Your task to perform on an android device: open app "Firefox Browser" Image 0: 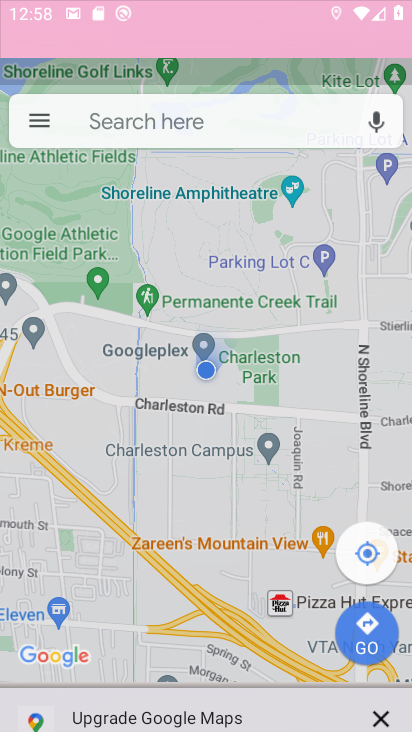
Step 0: drag from (271, 618) to (279, 228)
Your task to perform on an android device: open app "Firefox Browser" Image 1: 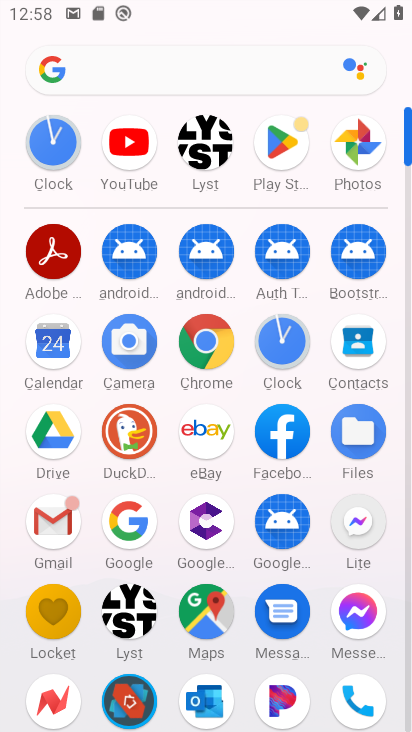
Step 1: click (261, 152)
Your task to perform on an android device: open app "Firefox Browser" Image 2: 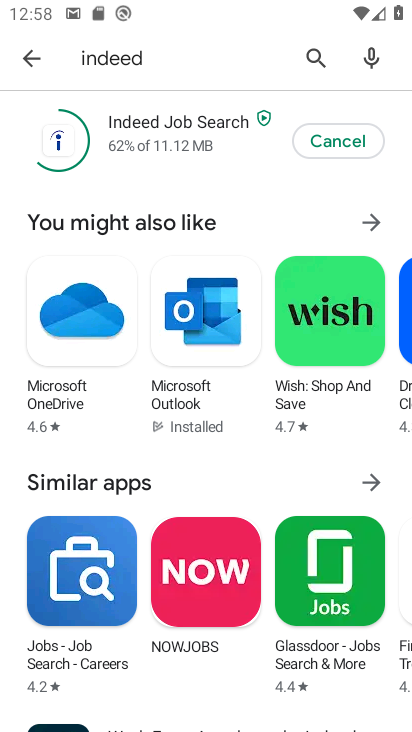
Step 2: click (296, 70)
Your task to perform on an android device: open app "Firefox Browser" Image 3: 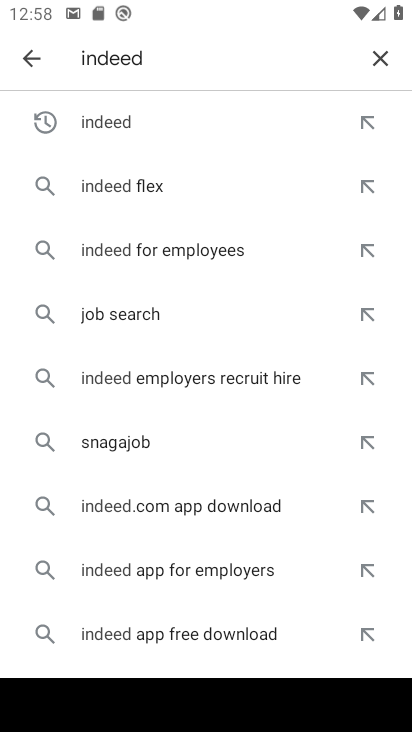
Step 3: click (367, 66)
Your task to perform on an android device: open app "Firefox Browser" Image 4: 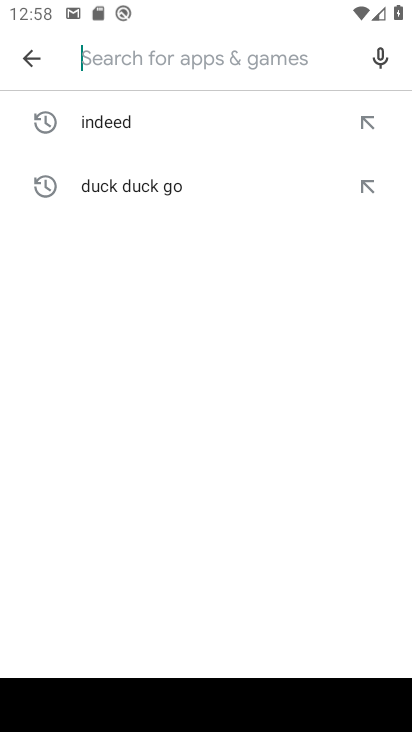
Step 4: type "firefox"
Your task to perform on an android device: open app "Firefox Browser" Image 5: 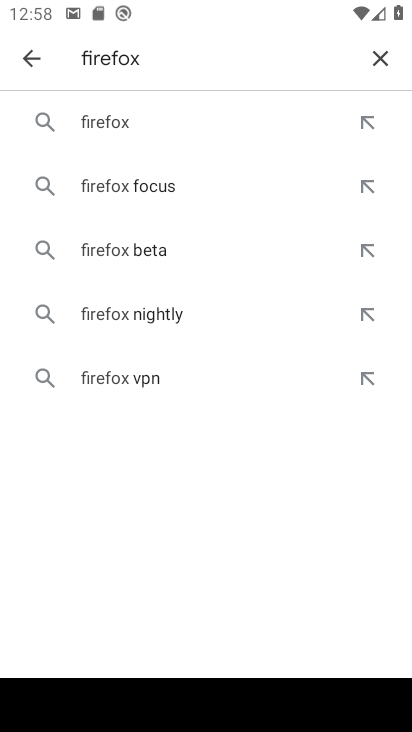
Step 5: click (225, 118)
Your task to perform on an android device: open app "Firefox Browser" Image 6: 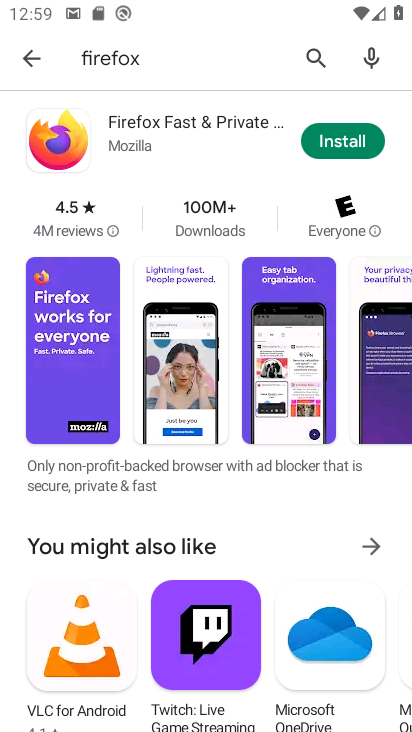
Step 6: click (336, 132)
Your task to perform on an android device: open app "Firefox Browser" Image 7: 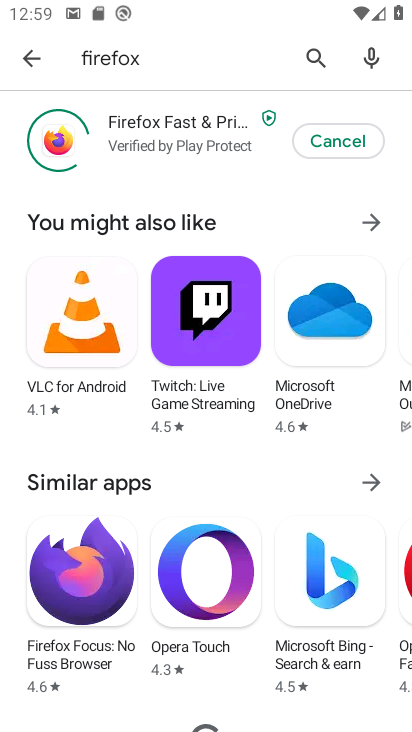
Step 7: task complete